Your task to perform on an android device: Go to Google Image 0: 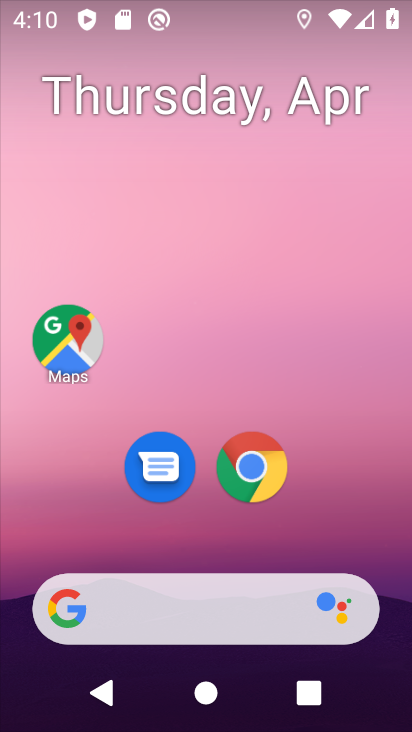
Step 0: click (211, 601)
Your task to perform on an android device: Go to Google Image 1: 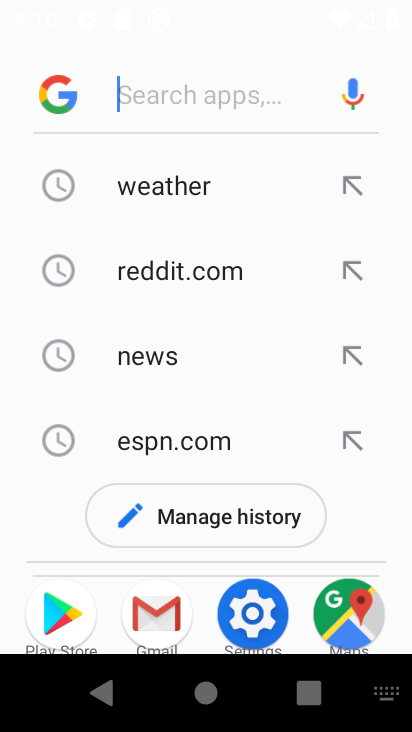
Step 1: click (47, 83)
Your task to perform on an android device: Go to Google Image 2: 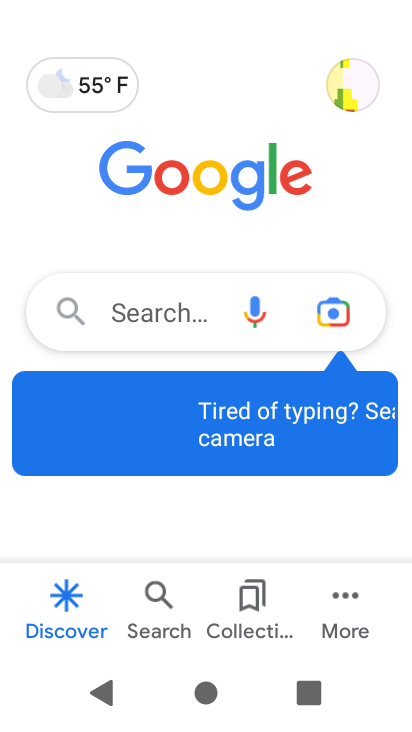
Step 2: task complete